Your task to perform on an android device: turn on showing notifications on the lock screen Image 0: 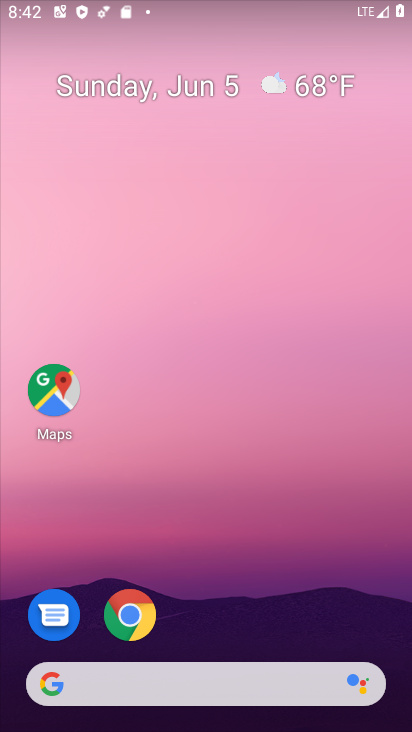
Step 0: drag from (208, 645) to (210, 240)
Your task to perform on an android device: turn on showing notifications on the lock screen Image 1: 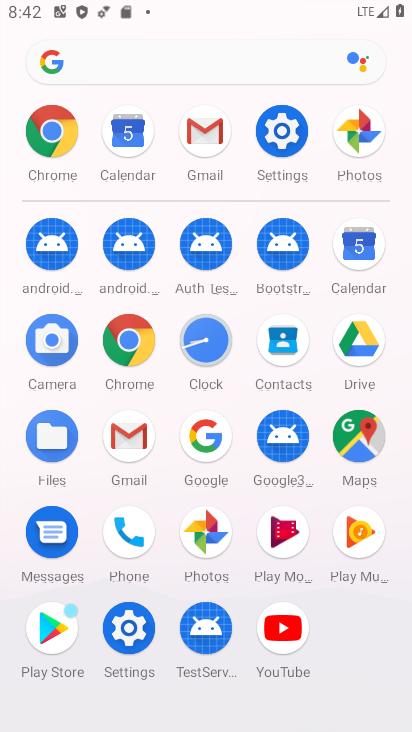
Step 1: click (122, 640)
Your task to perform on an android device: turn on showing notifications on the lock screen Image 2: 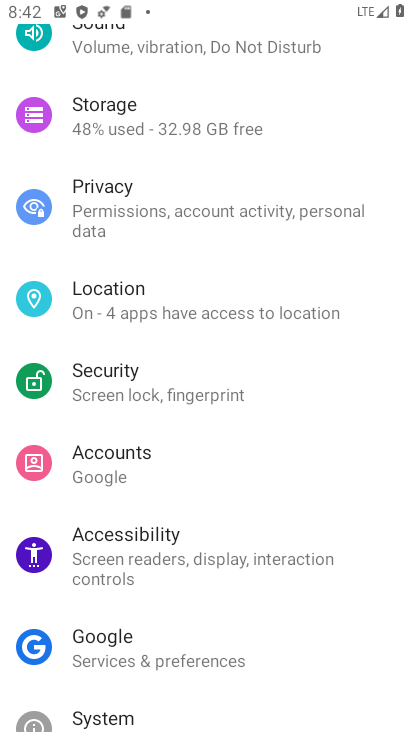
Step 2: drag from (142, 117) to (66, 683)
Your task to perform on an android device: turn on showing notifications on the lock screen Image 3: 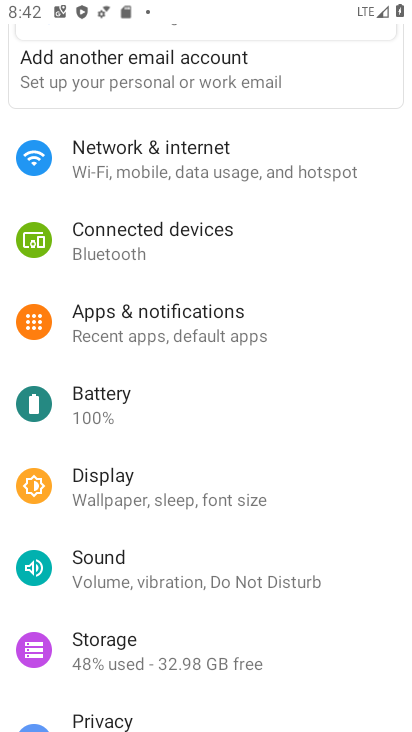
Step 3: click (106, 313)
Your task to perform on an android device: turn on showing notifications on the lock screen Image 4: 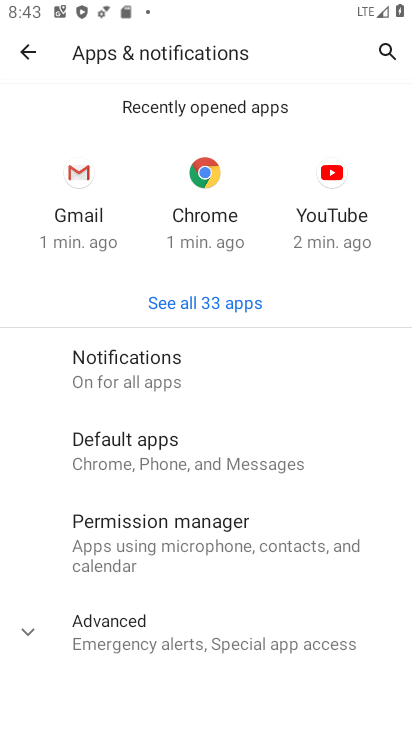
Step 4: click (219, 371)
Your task to perform on an android device: turn on showing notifications on the lock screen Image 5: 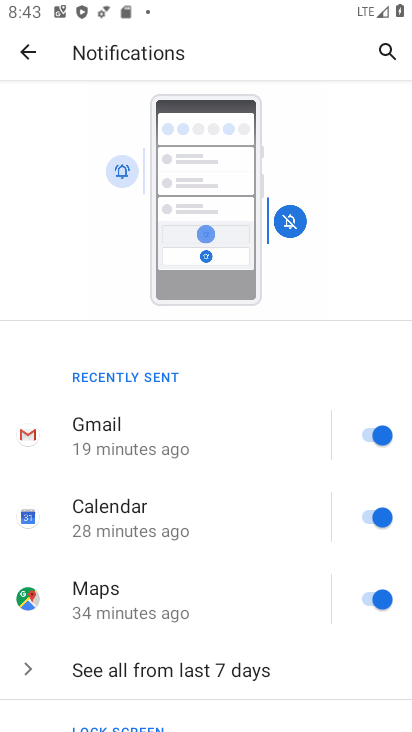
Step 5: drag from (183, 623) to (258, 166)
Your task to perform on an android device: turn on showing notifications on the lock screen Image 6: 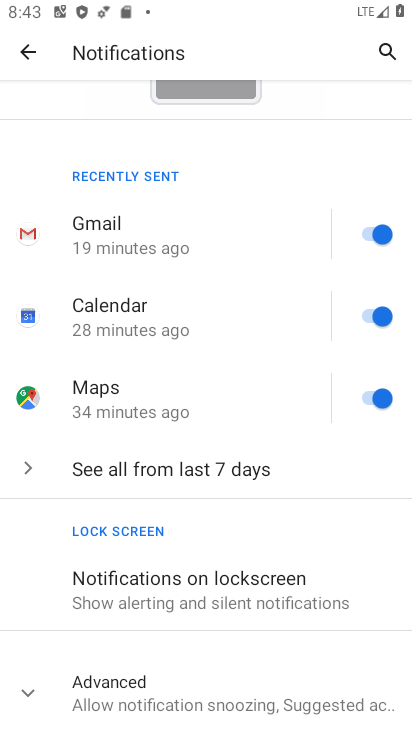
Step 6: click (216, 605)
Your task to perform on an android device: turn on showing notifications on the lock screen Image 7: 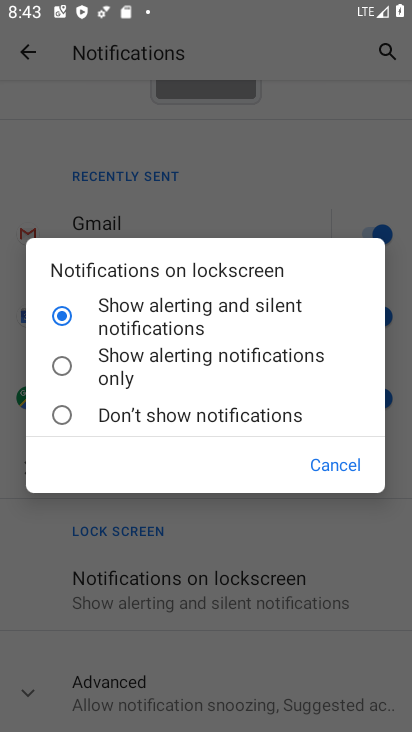
Step 7: click (163, 328)
Your task to perform on an android device: turn on showing notifications on the lock screen Image 8: 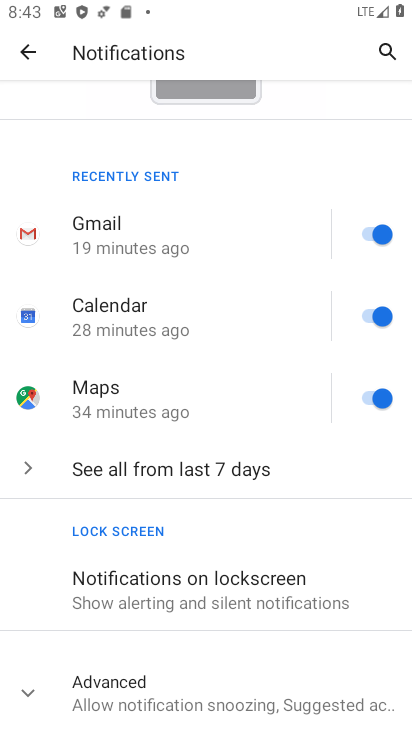
Step 8: task complete